Your task to perform on an android device: Open Google Chrome and open the bookmarks view Image 0: 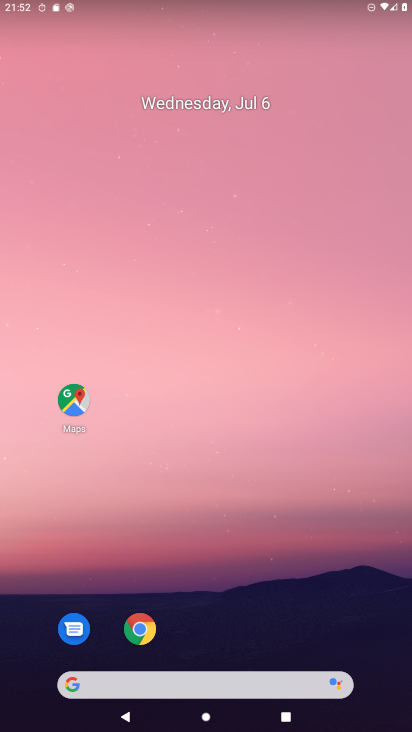
Step 0: click (140, 630)
Your task to perform on an android device: Open Google Chrome and open the bookmarks view Image 1: 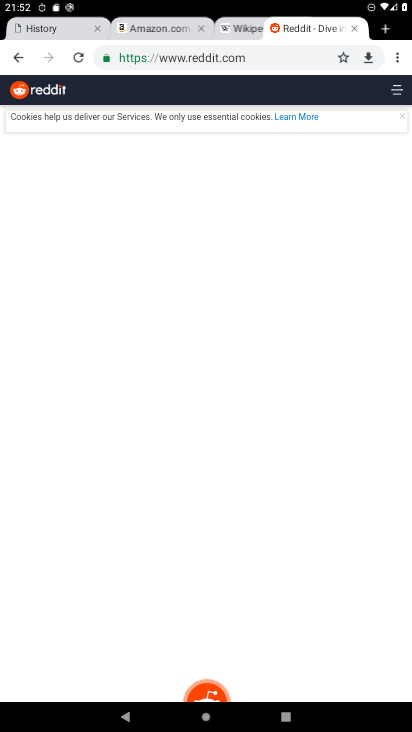
Step 1: click (396, 57)
Your task to perform on an android device: Open Google Chrome and open the bookmarks view Image 2: 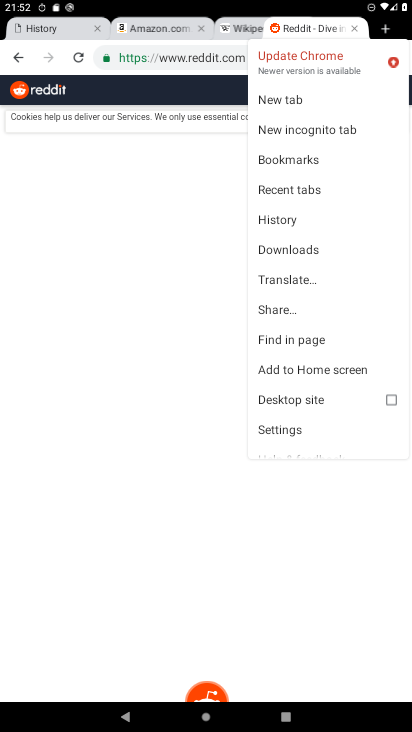
Step 2: click (305, 161)
Your task to perform on an android device: Open Google Chrome and open the bookmarks view Image 3: 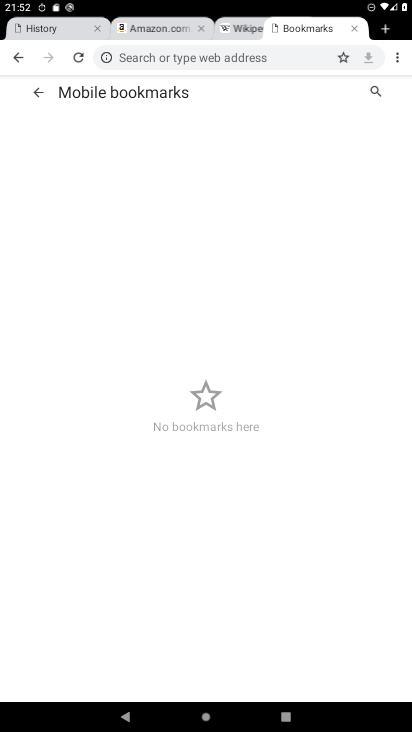
Step 3: task complete